Your task to perform on an android device: move a message to another label in the gmail app Image 0: 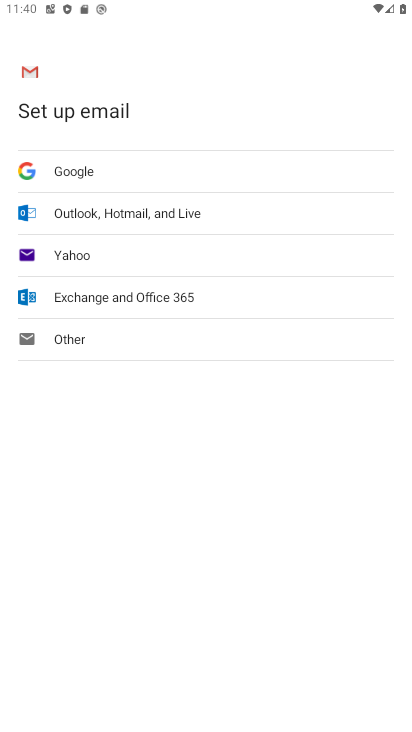
Step 0: press home button
Your task to perform on an android device: move a message to another label in the gmail app Image 1: 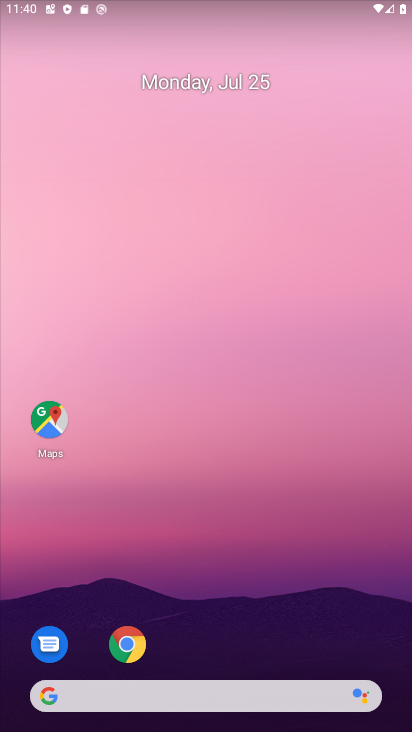
Step 1: drag from (206, 644) to (250, 159)
Your task to perform on an android device: move a message to another label in the gmail app Image 2: 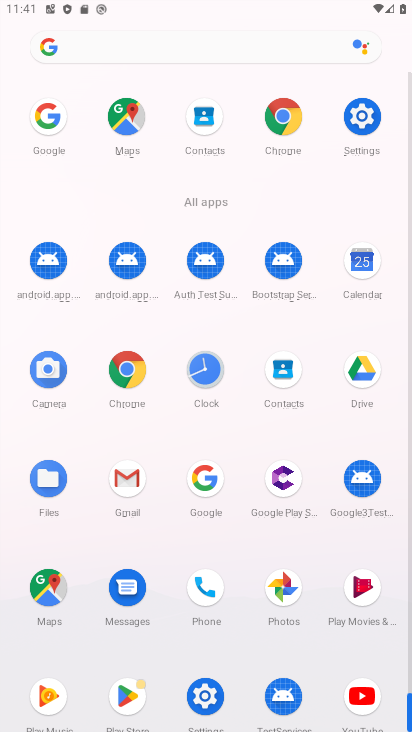
Step 2: click (133, 485)
Your task to perform on an android device: move a message to another label in the gmail app Image 3: 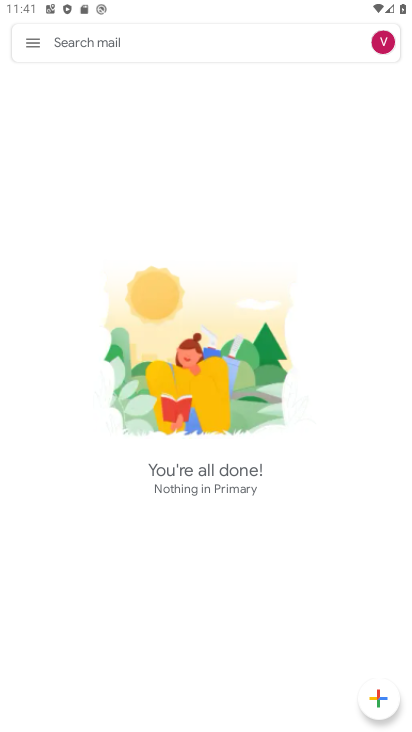
Step 3: click (35, 43)
Your task to perform on an android device: move a message to another label in the gmail app Image 4: 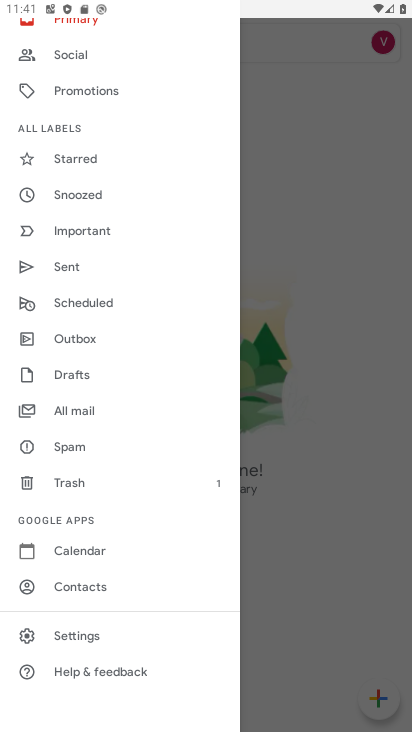
Step 4: click (93, 413)
Your task to perform on an android device: move a message to another label in the gmail app Image 5: 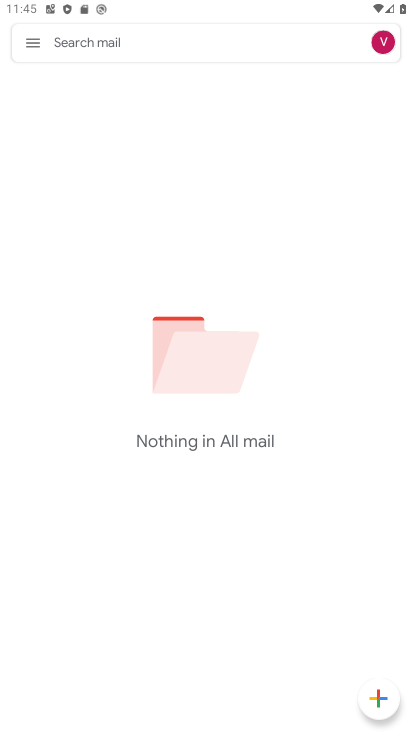
Step 5: click (30, 45)
Your task to perform on an android device: move a message to another label in the gmail app Image 6: 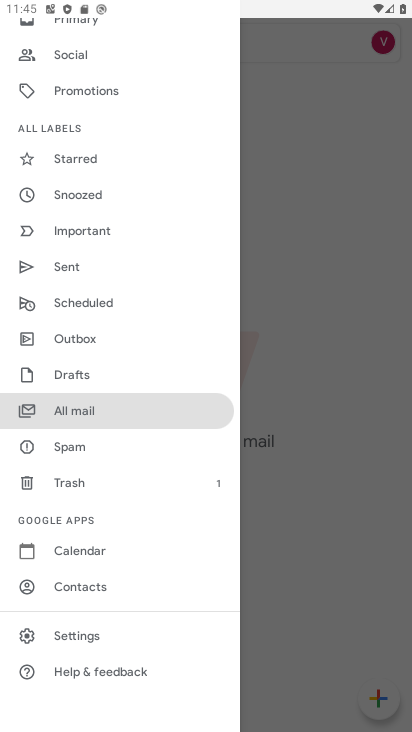
Step 6: click (94, 420)
Your task to perform on an android device: move a message to another label in the gmail app Image 7: 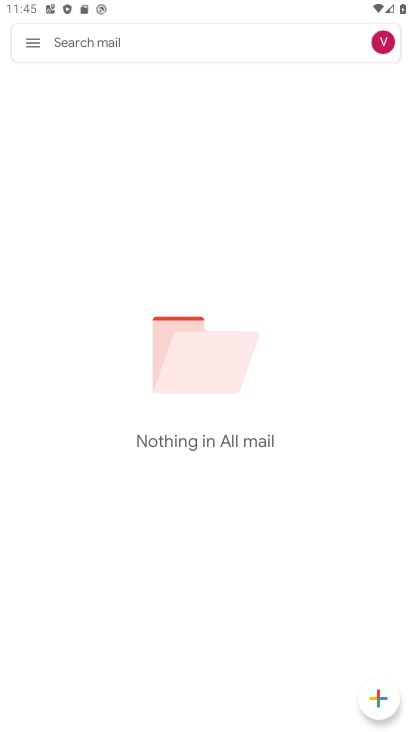
Step 7: task complete